Your task to perform on an android device: Open Yahoo.com Image 0: 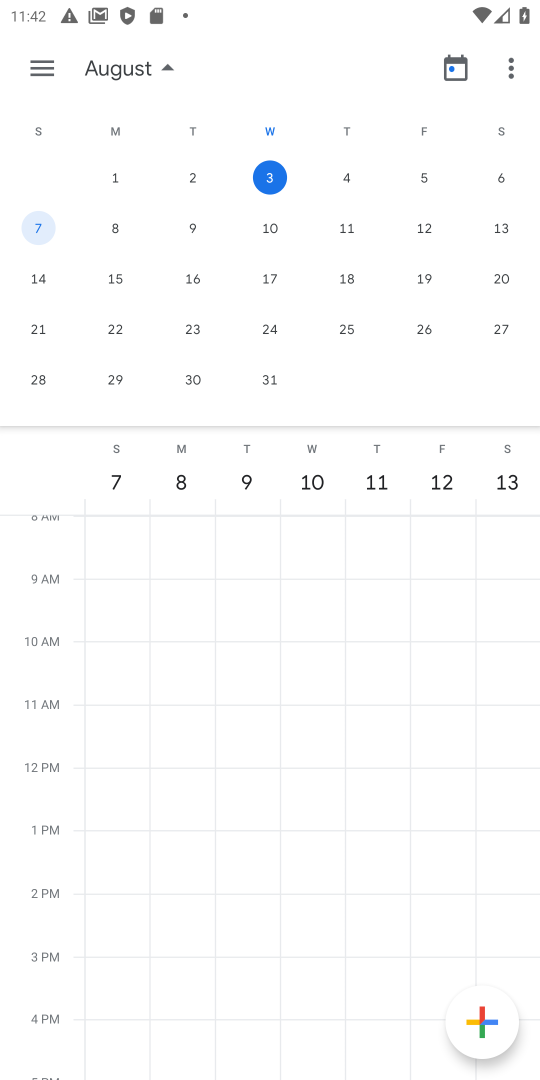
Step 0: press back button
Your task to perform on an android device: Open Yahoo.com Image 1: 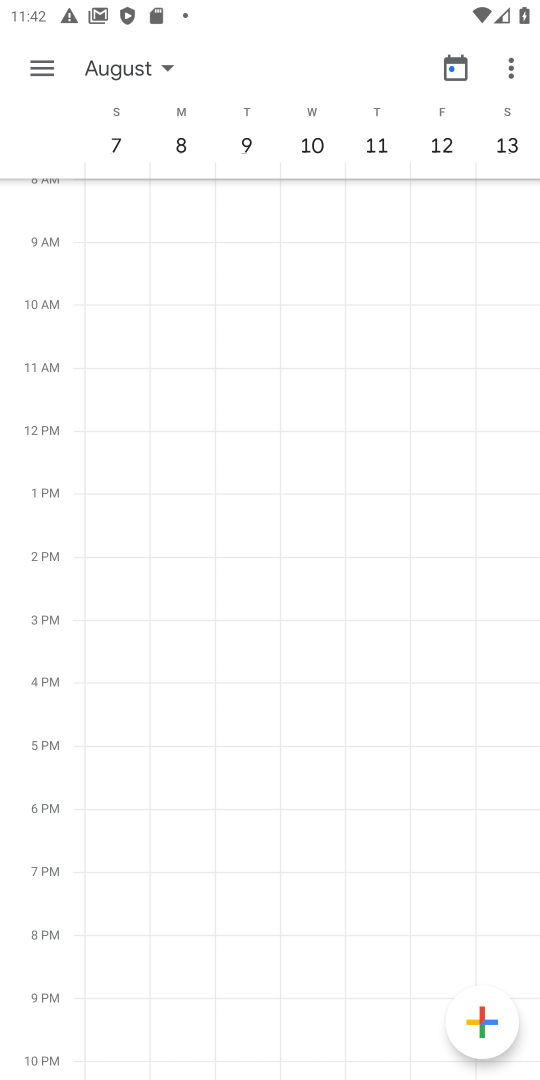
Step 1: press home button
Your task to perform on an android device: Open Yahoo.com Image 2: 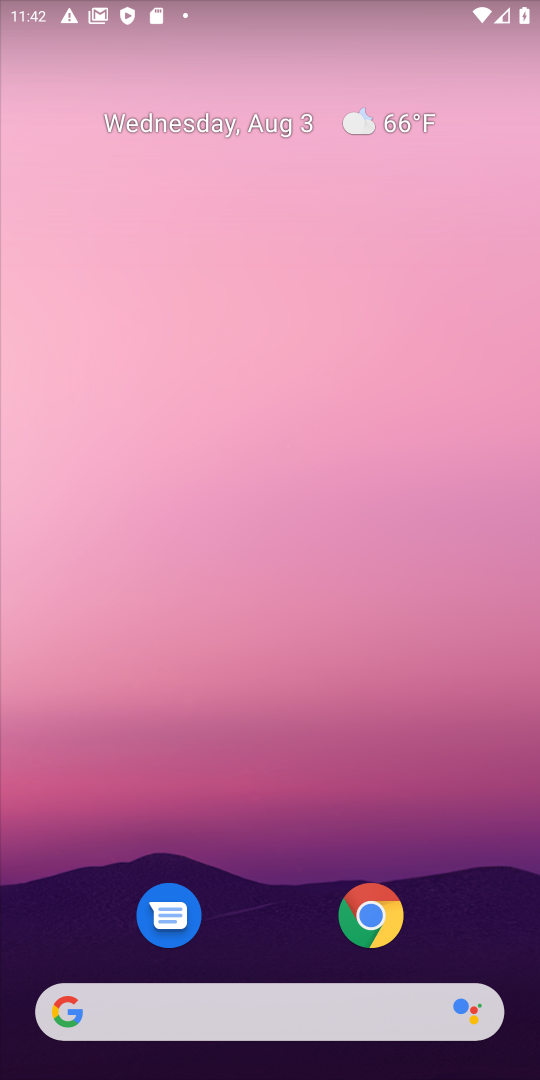
Step 2: click (370, 900)
Your task to perform on an android device: Open Yahoo.com Image 3: 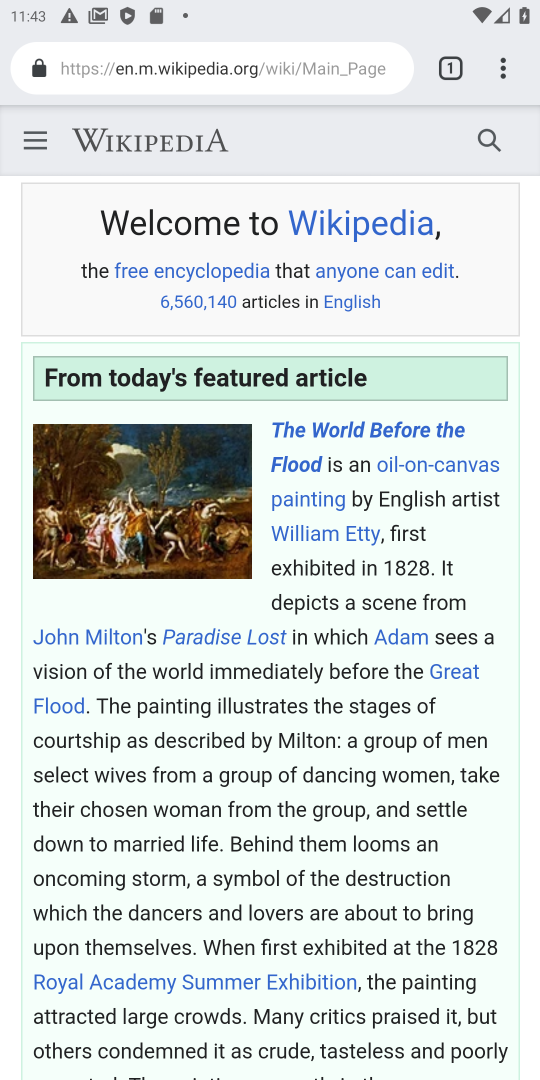
Step 3: click (244, 61)
Your task to perform on an android device: Open Yahoo.com Image 4: 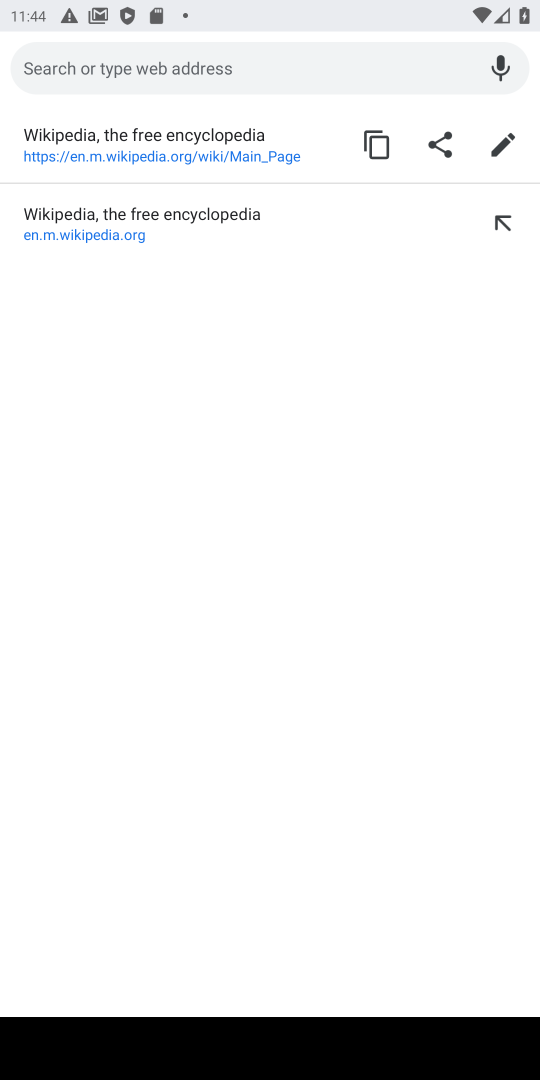
Step 4: type "www.yahoo.com"
Your task to perform on an android device: Open Yahoo.com Image 5: 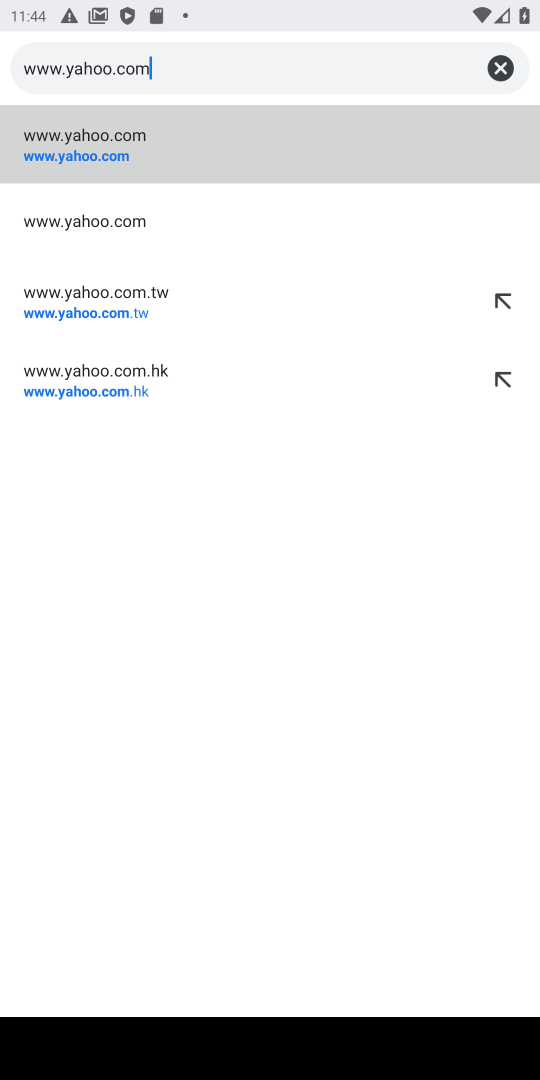
Step 5: click (84, 146)
Your task to perform on an android device: Open Yahoo.com Image 6: 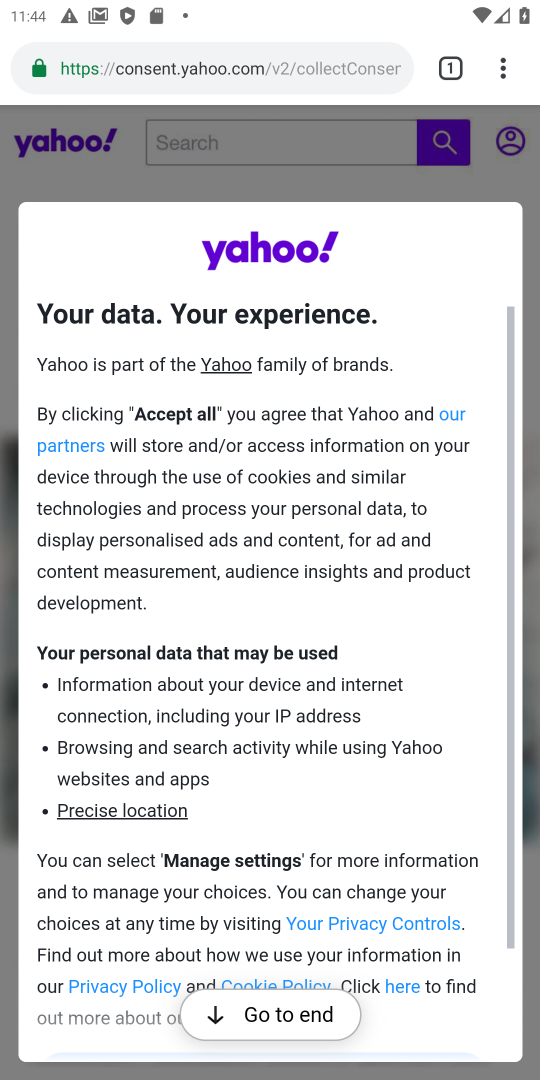
Step 6: task complete